Your task to perform on an android device: turn off notifications in google photos Image 0: 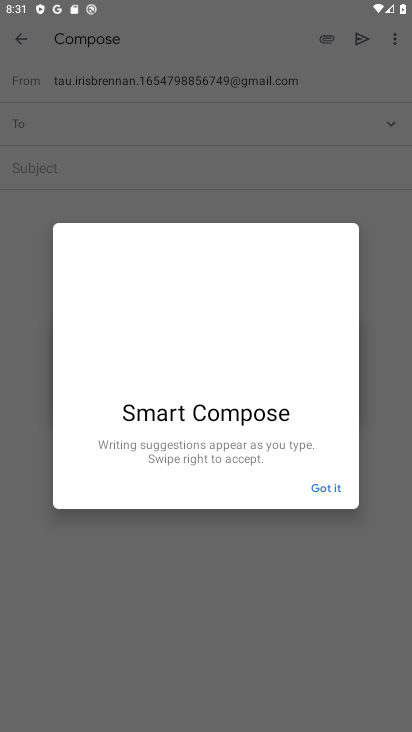
Step 0: press home button
Your task to perform on an android device: turn off notifications in google photos Image 1: 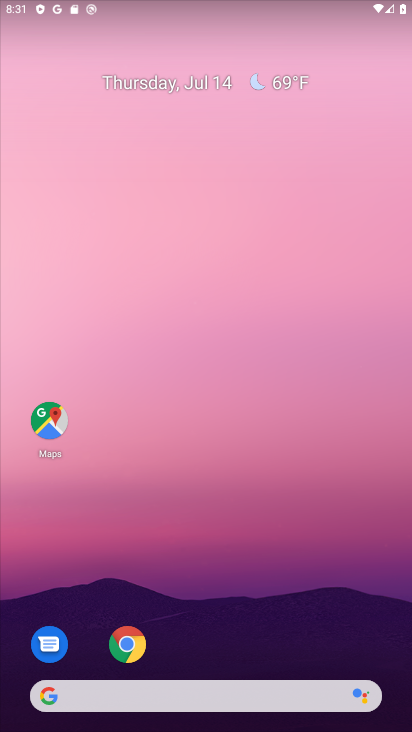
Step 1: drag from (208, 636) to (264, 43)
Your task to perform on an android device: turn off notifications in google photos Image 2: 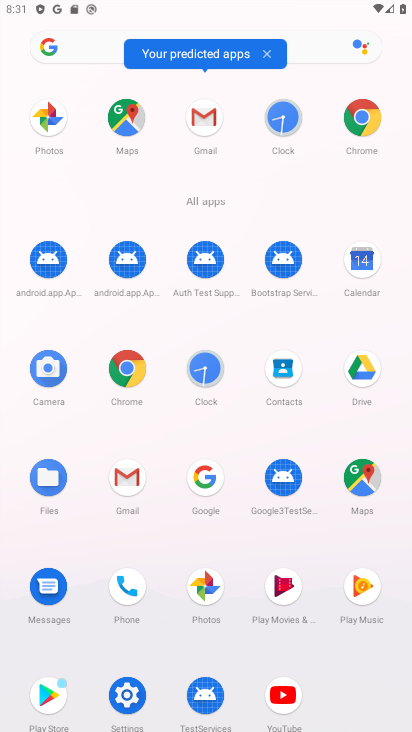
Step 2: click (41, 123)
Your task to perform on an android device: turn off notifications in google photos Image 3: 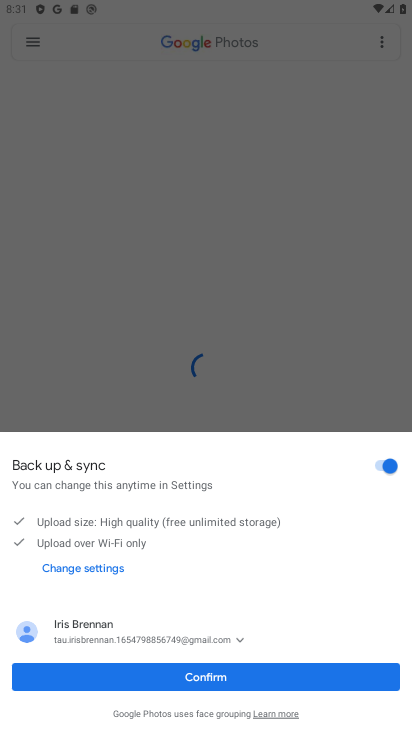
Step 3: click (216, 672)
Your task to perform on an android device: turn off notifications in google photos Image 4: 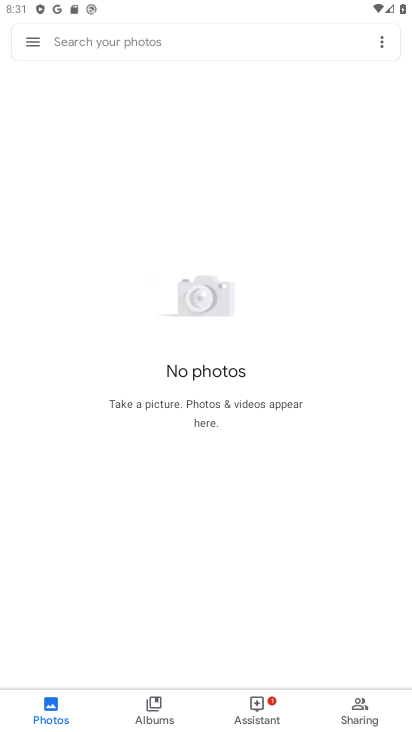
Step 4: click (41, 40)
Your task to perform on an android device: turn off notifications in google photos Image 5: 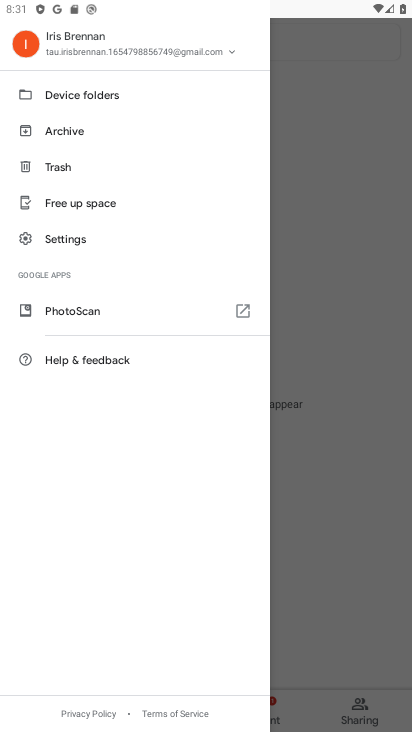
Step 5: click (107, 242)
Your task to perform on an android device: turn off notifications in google photos Image 6: 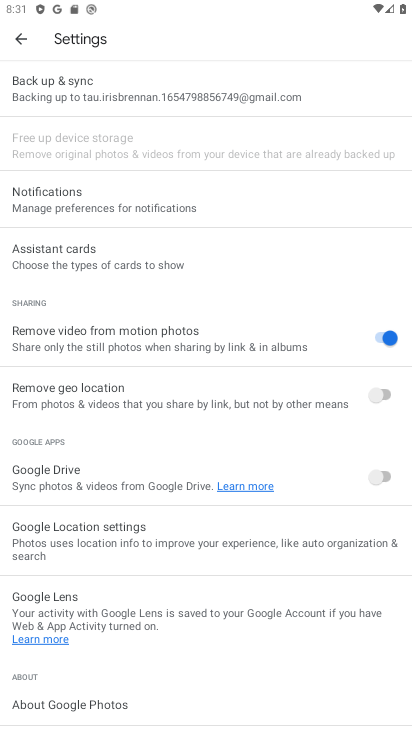
Step 6: click (127, 212)
Your task to perform on an android device: turn off notifications in google photos Image 7: 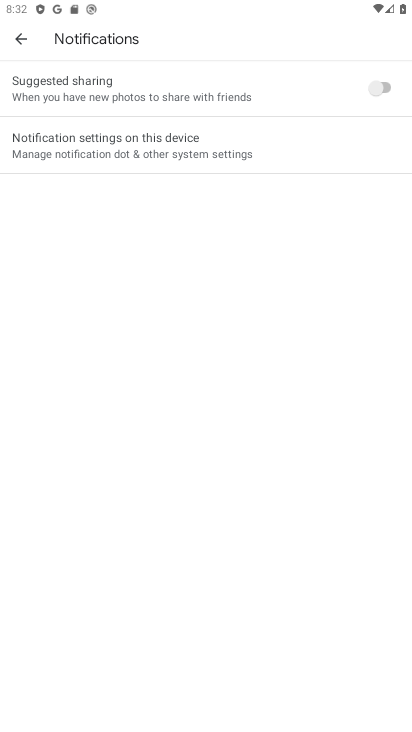
Step 7: click (218, 138)
Your task to perform on an android device: turn off notifications in google photos Image 8: 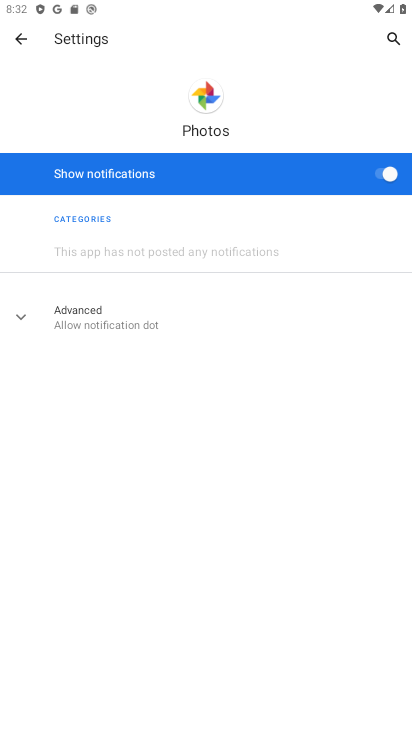
Step 8: click (384, 180)
Your task to perform on an android device: turn off notifications in google photos Image 9: 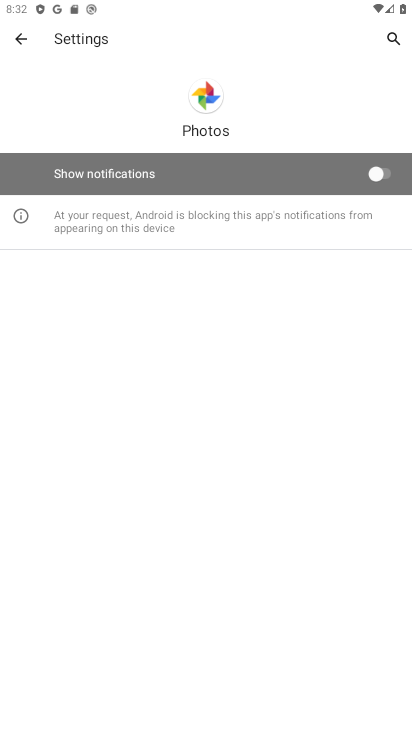
Step 9: task complete